Your task to perform on an android device: open app "Google Play Music" (install if not already installed) Image 0: 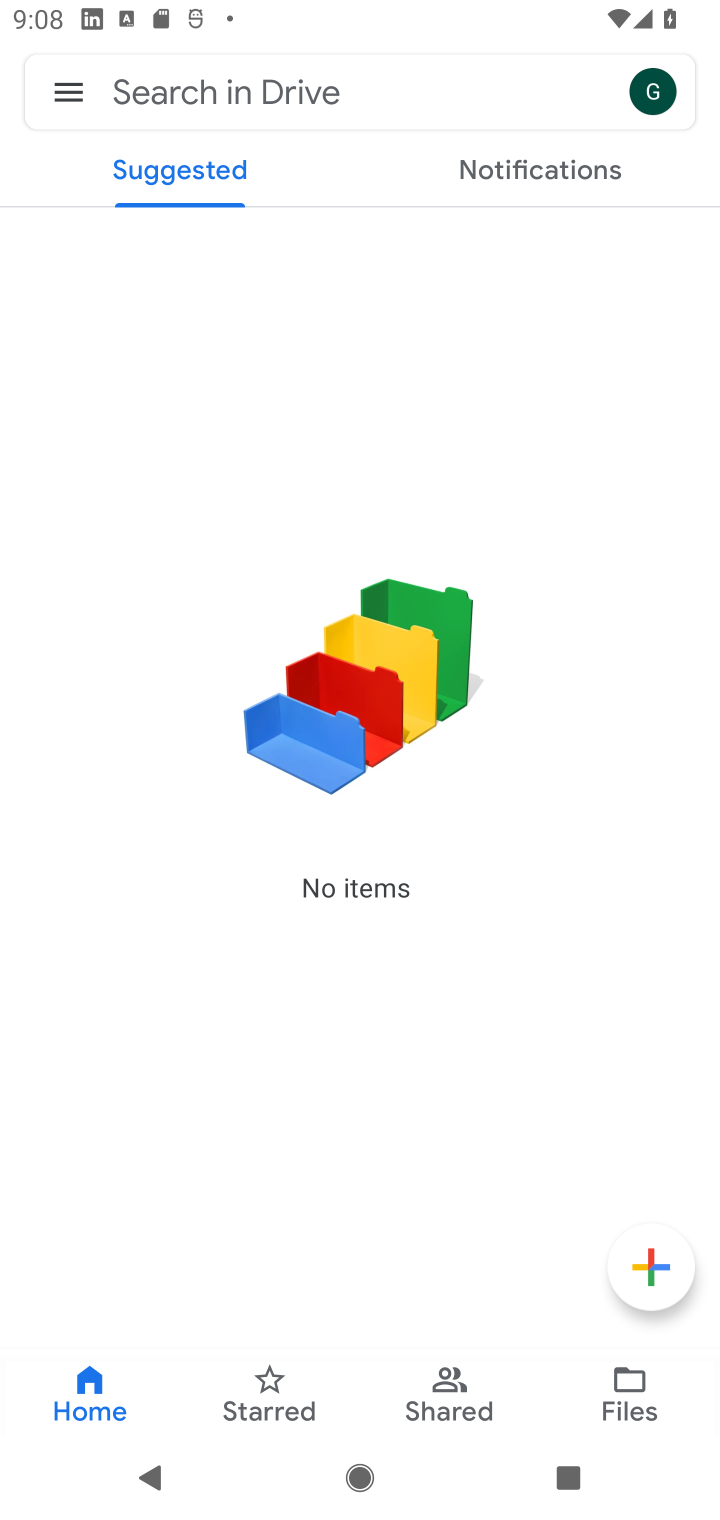
Step 0: press home button
Your task to perform on an android device: open app "Google Play Music" (install if not already installed) Image 1: 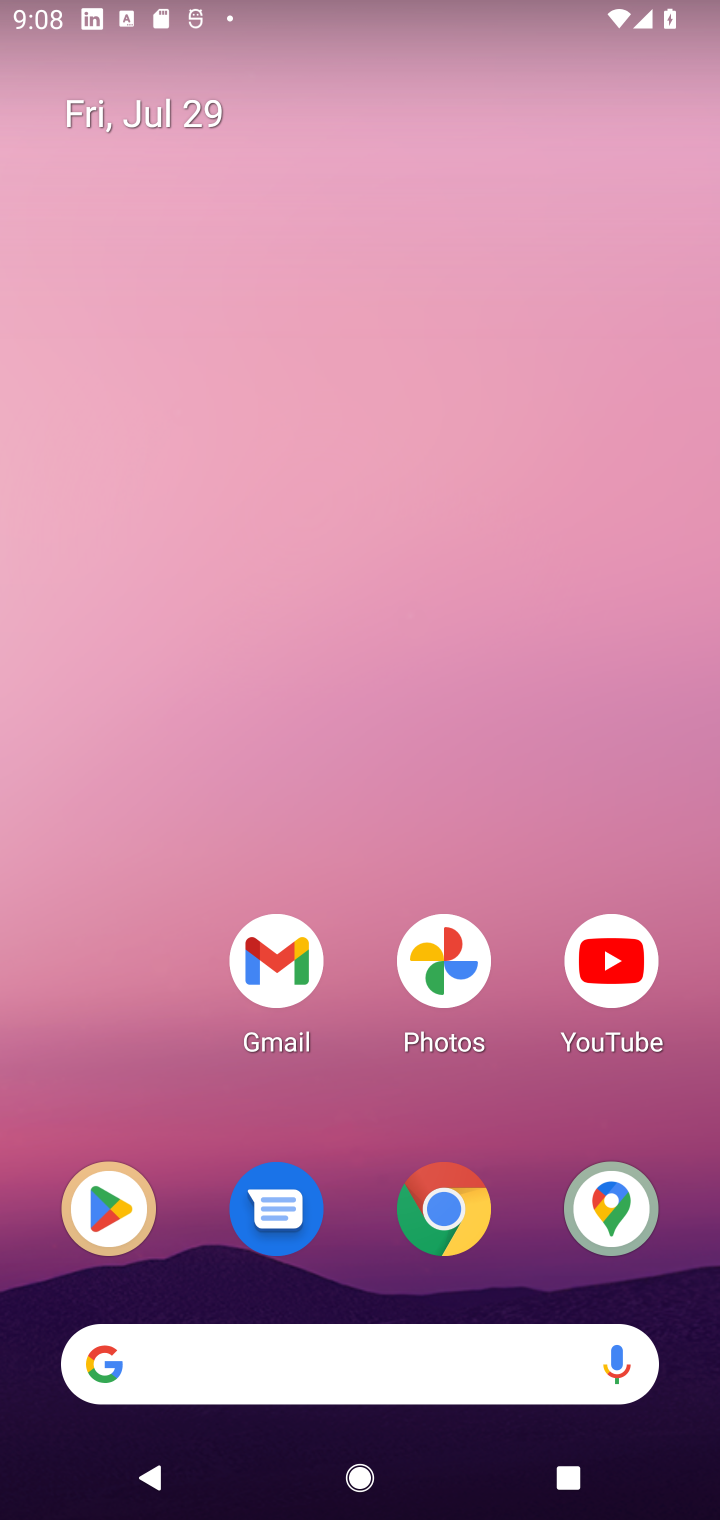
Step 1: click (106, 1199)
Your task to perform on an android device: open app "Google Play Music" (install if not already installed) Image 2: 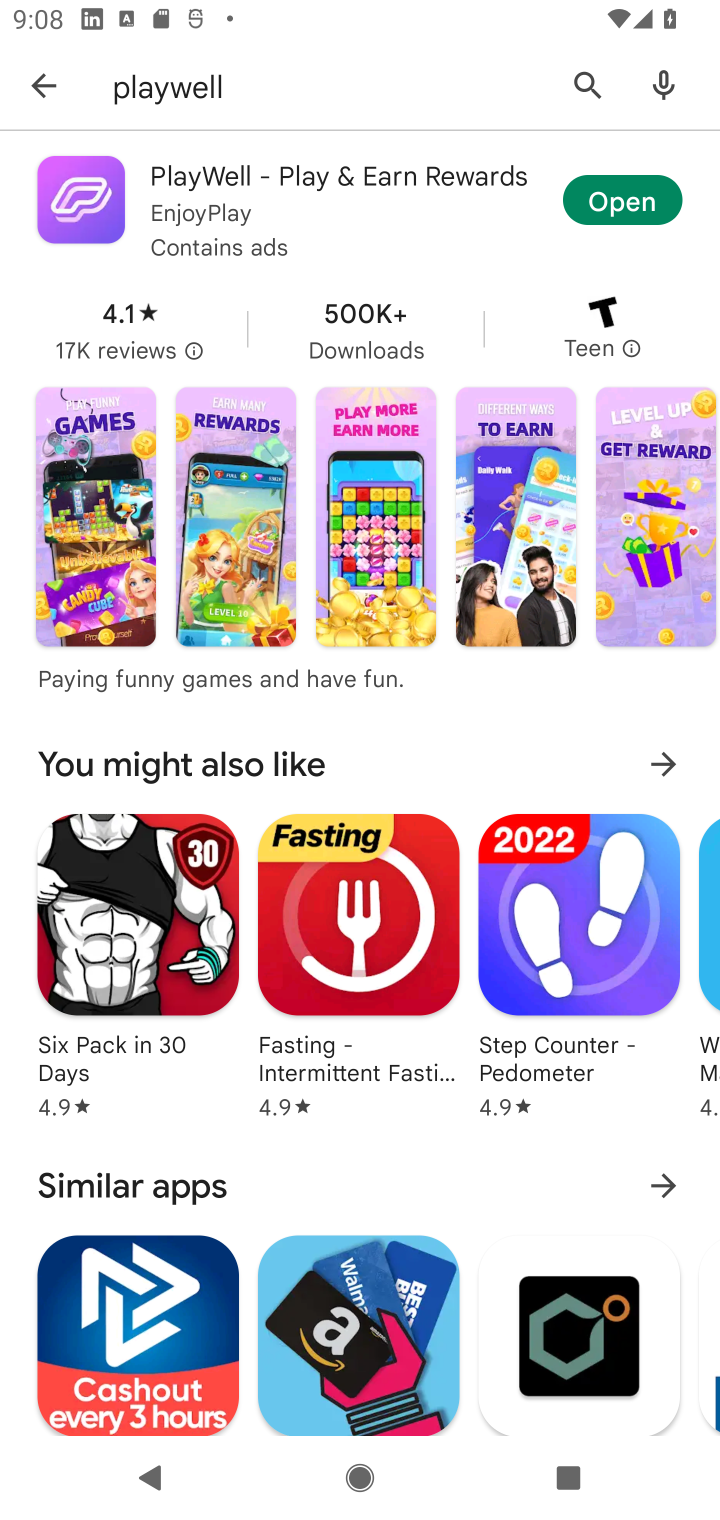
Step 2: click (567, 64)
Your task to perform on an android device: open app "Google Play Music" (install if not already installed) Image 3: 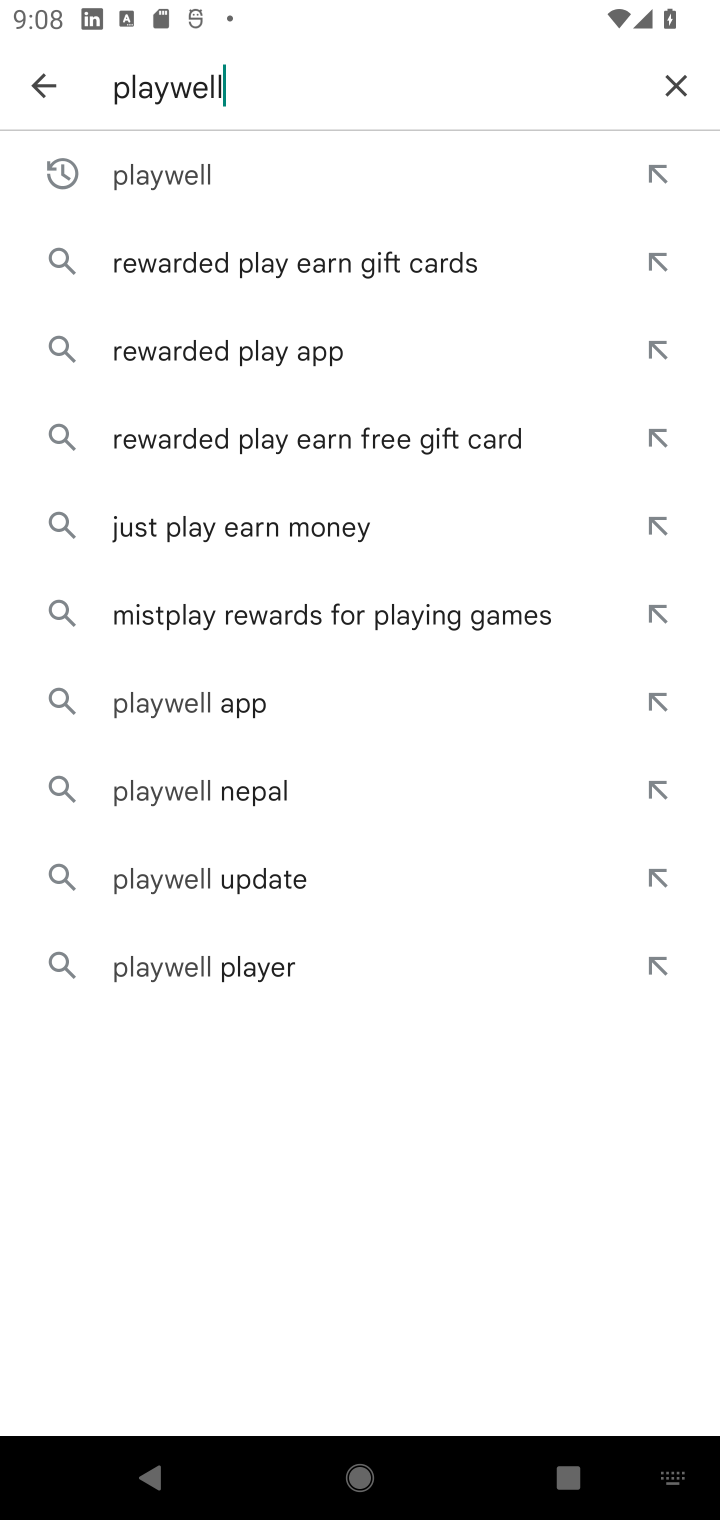
Step 3: click (681, 89)
Your task to perform on an android device: open app "Google Play Music" (install if not already installed) Image 4: 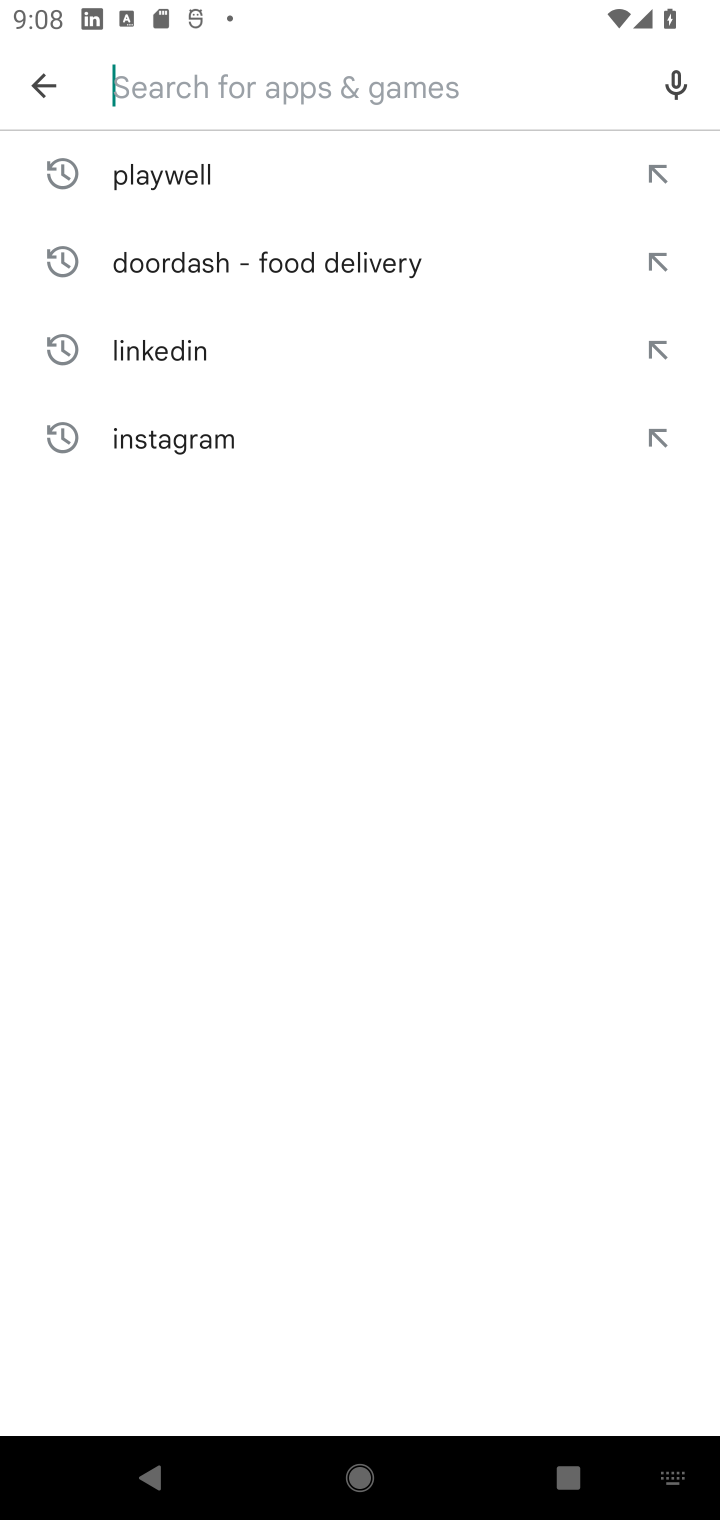
Step 4: type "Google Play Music"
Your task to perform on an android device: open app "Google Play Music" (install if not already installed) Image 5: 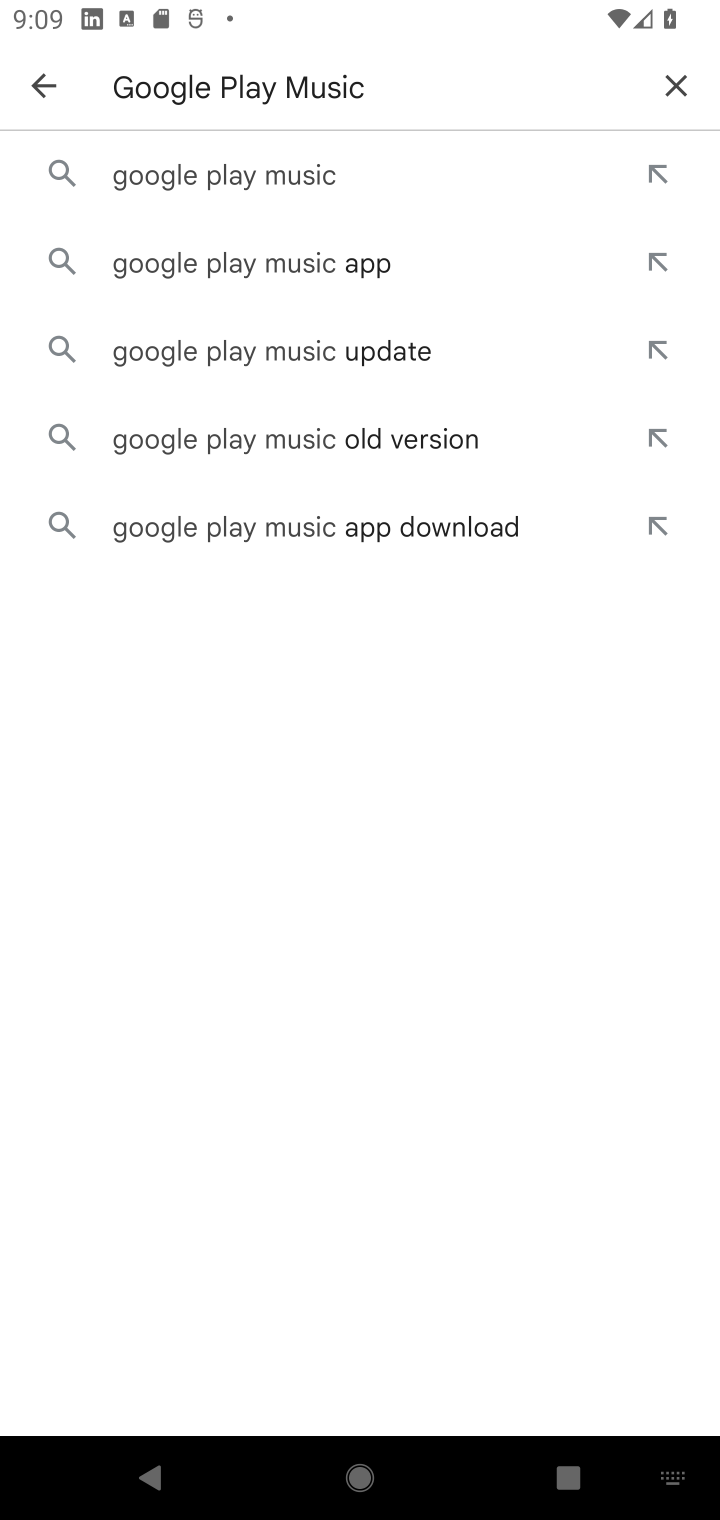
Step 5: click (217, 181)
Your task to perform on an android device: open app "Google Play Music" (install if not already installed) Image 6: 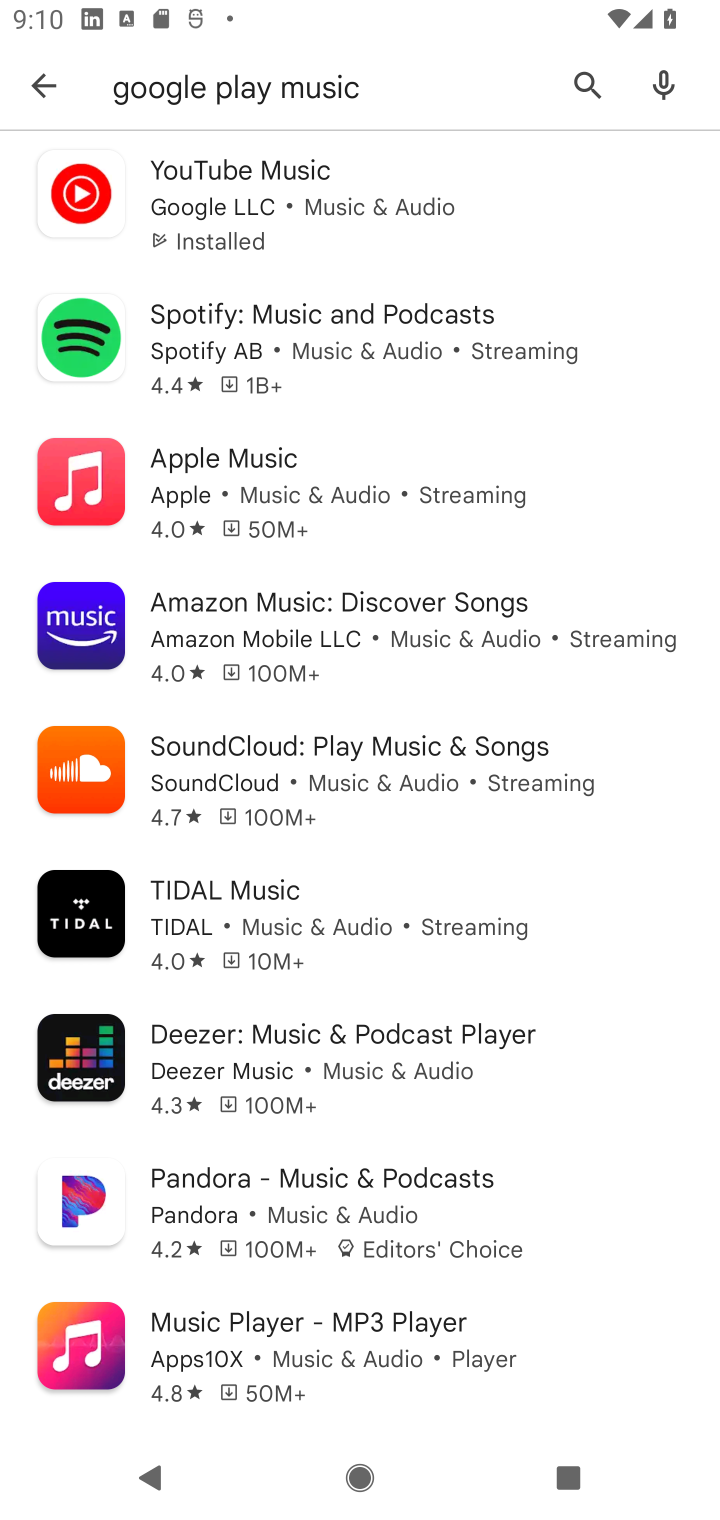
Step 6: task complete